Your task to perform on an android device: turn off airplane mode Image 0: 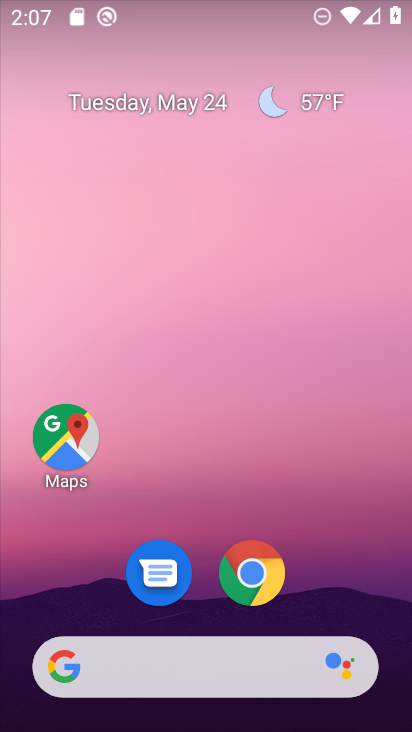
Step 0: drag from (341, 566) to (284, 132)
Your task to perform on an android device: turn off airplane mode Image 1: 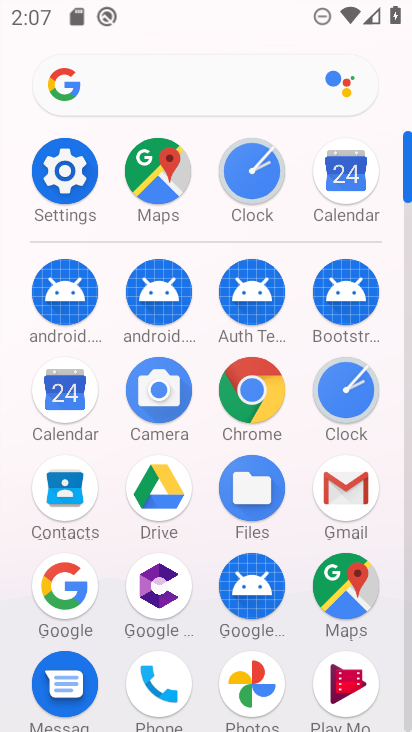
Step 1: click (60, 177)
Your task to perform on an android device: turn off airplane mode Image 2: 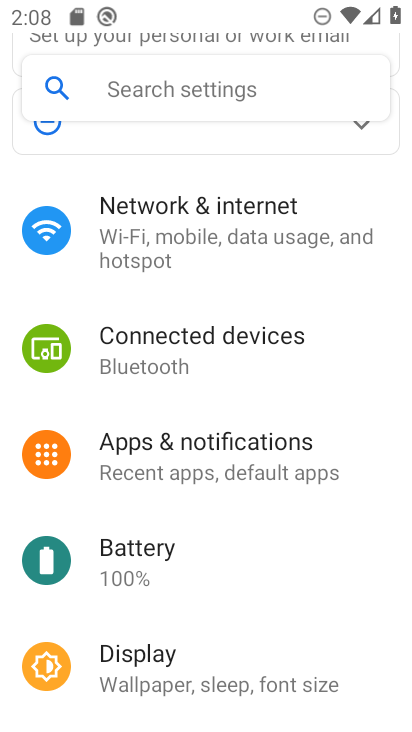
Step 2: click (194, 237)
Your task to perform on an android device: turn off airplane mode Image 3: 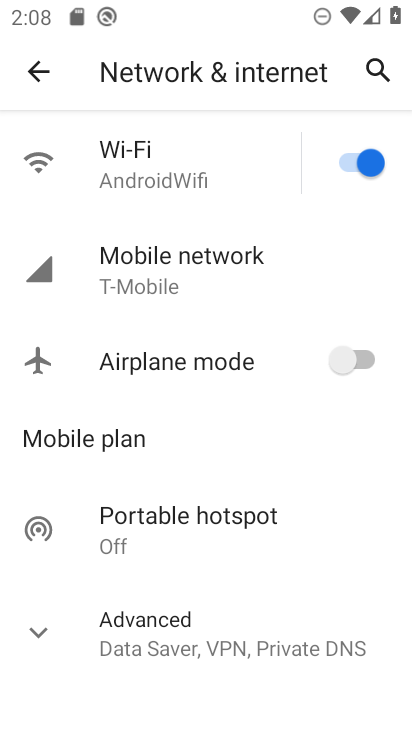
Step 3: task complete